Your task to perform on an android device: Open Youtube and go to the subscriptions tab Image 0: 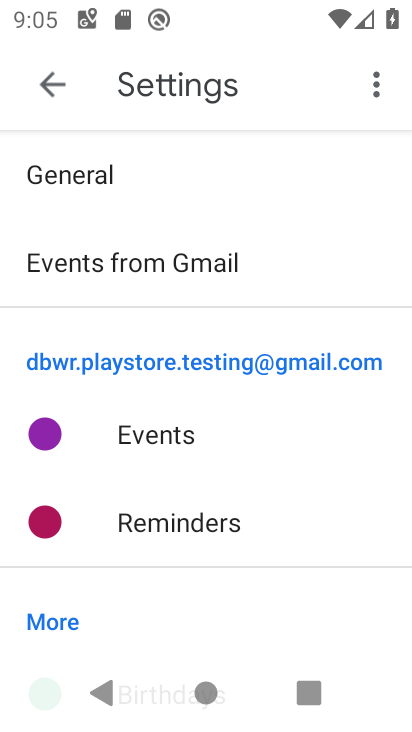
Step 0: press home button
Your task to perform on an android device: Open Youtube and go to the subscriptions tab Image 1: 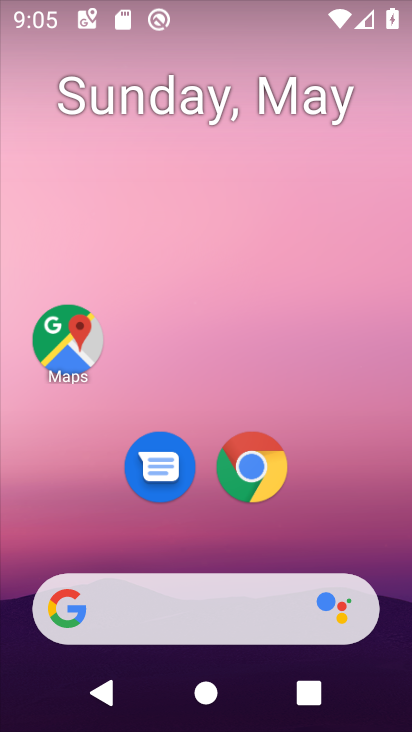
Step 1: drag from (377, 541) to (379, 70)
Your task to perform on an android device: Open Youtube and go to the subscriptions tab Image 2: 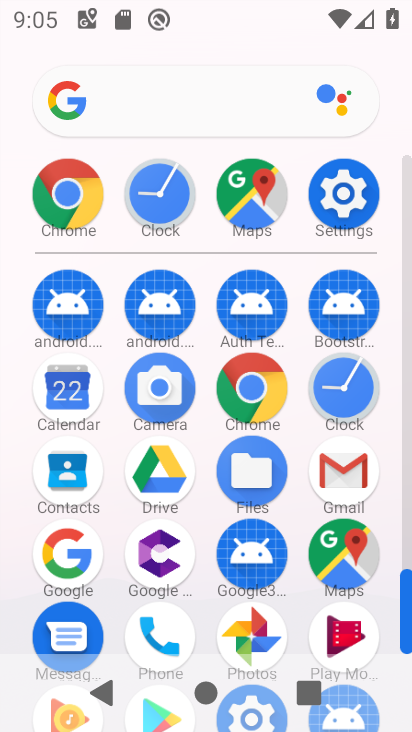
Step 2: drag from (217, 622) to (248, 222)
Your task to perform on an android device: Open Youtube and go to the subscriptions tab Image 3: 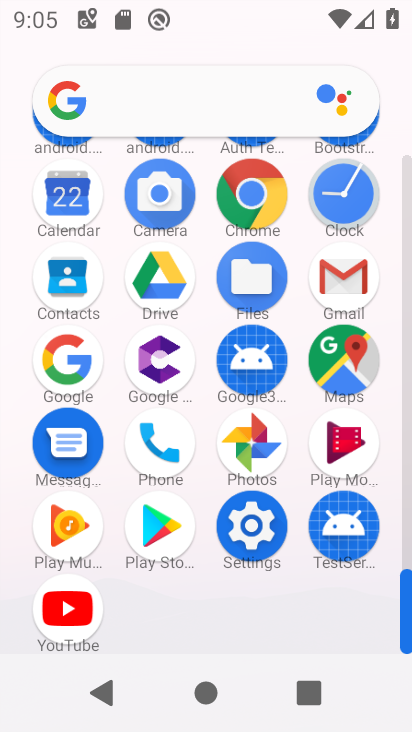
Step 3: click (49, 617)
Your task to perform on an android device: Open Youtube and go to the subscriptions tab Image 4: 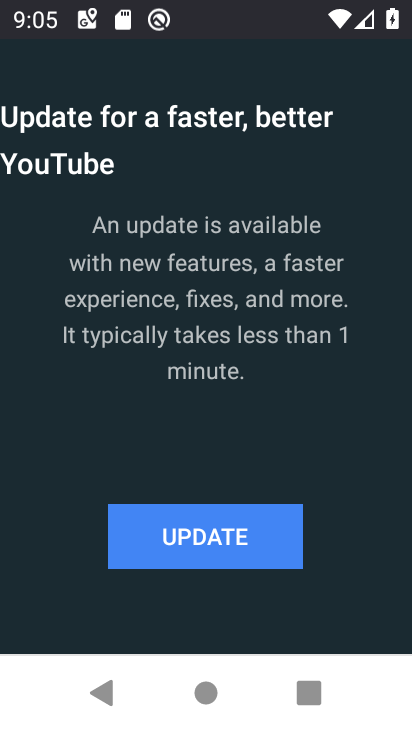
Step 4: click (221, 515)
Your task to perform on an android device: Open Youtube and go to the subscriptions tab Image 5: 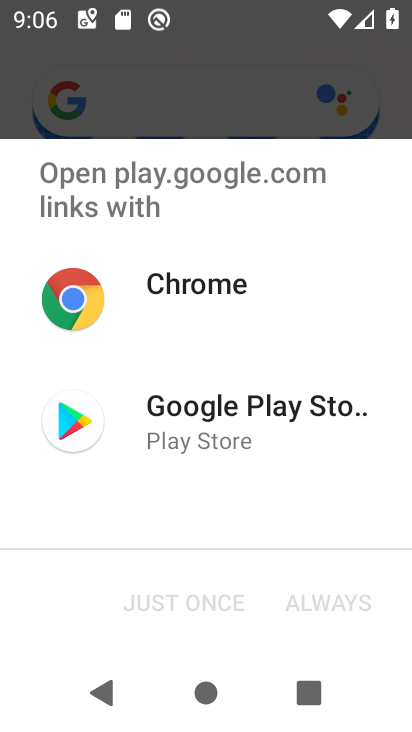
Step 5: click (199, 396)
Your task to perform on an android device: Open Youtube and go to the subscriptions tab Image 6: 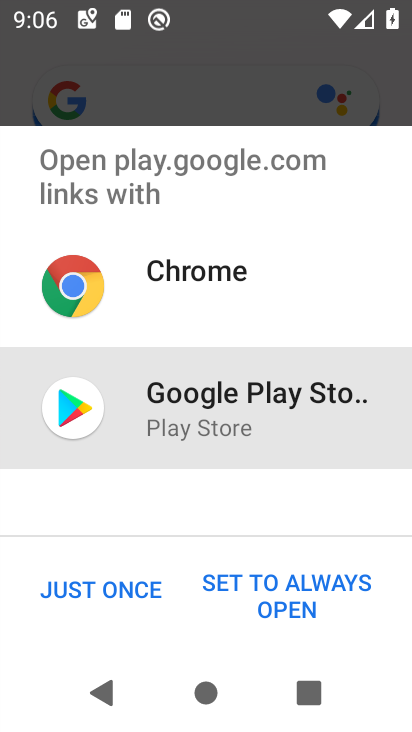
Step 6: click (79, 590)
Your task to perform on an android device: Open Youtube and go to the subscriptions tab Image 7: 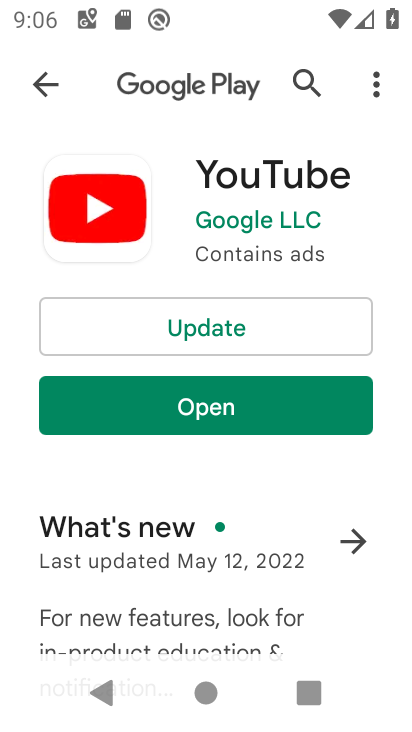
Step 7: click (246, 326)
Your task to perform on an android device: Open Youtube and go to the subscriptions tab Image 8: 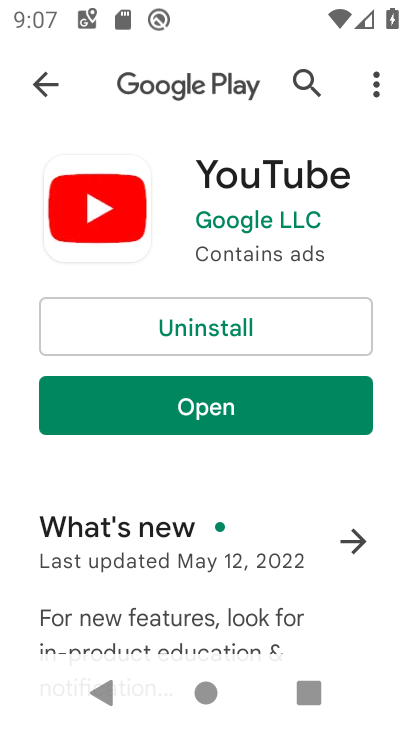
Step 8: click (203, 414)
Your task to perform on an android device: Open Youtube and go to the subscriptions tab Image 9: 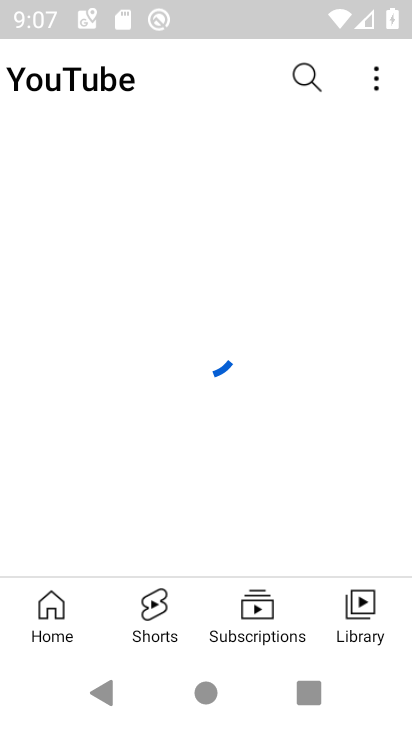
Step 9: click (266, 621)
Your task to perform on an android device: Open Youtube and go to the subscriptions tab Image 10: 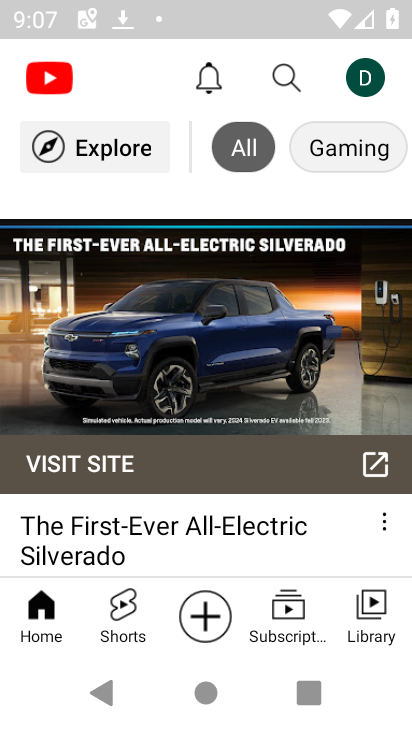
Step 10: task complete